Your task to perform on an android device: turn off notifications settings in the gmail app Image 0: 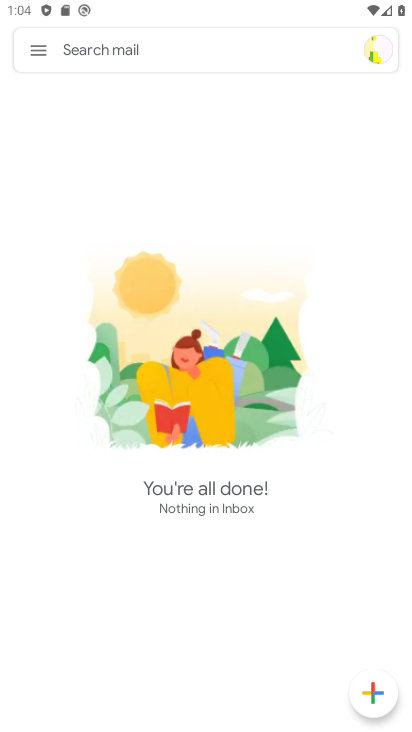
Step 0: click (49, 59)
Your task to perform on an android device: turn off notifications settings in the gmail app Image 1: 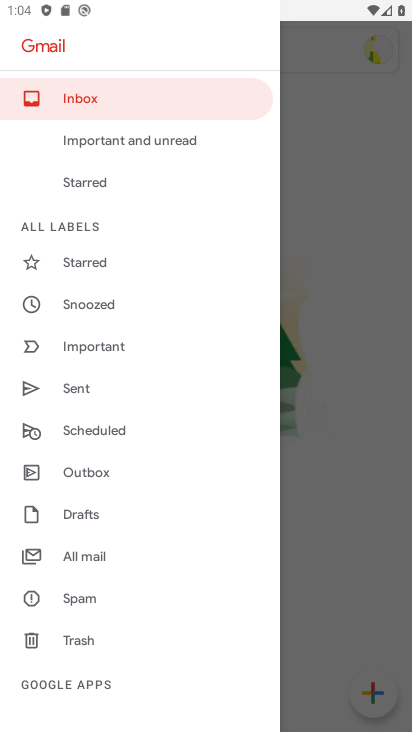
Step 1: drag from (108, 605) to (148, 150)
Your task to perform on an android device: turn off notifications settings in the gmail app Image 2: 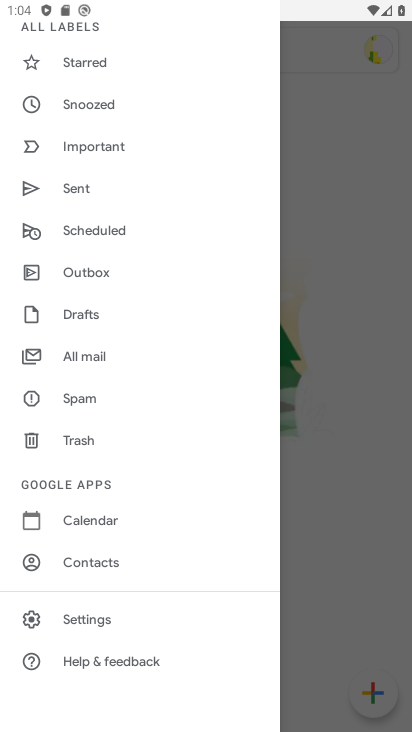
Step 2: click (83, 612)
Your task to perform on an android device: turn off notifications settings in the gmail app Image 3: 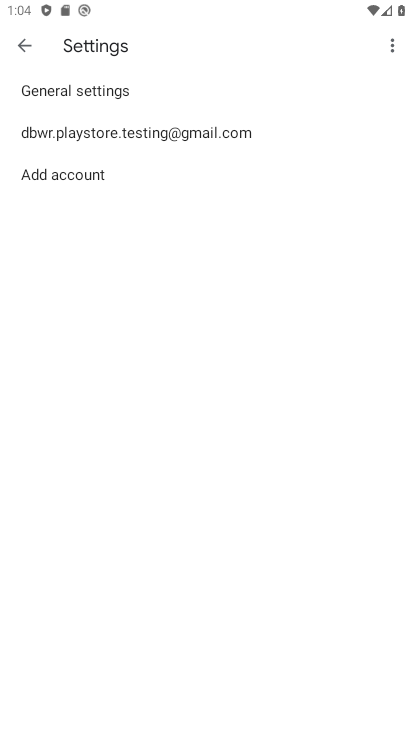
Step 3: click (191, 133)
Your task to perform on an android device: turn off notifications settings in the gmail app Image 4: 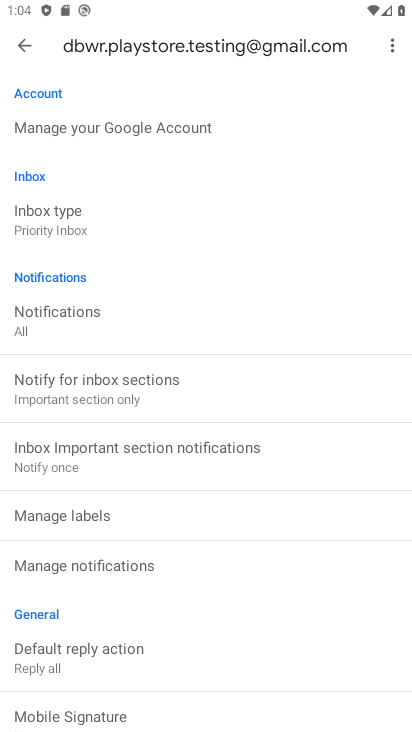
Step 4: click (165, 569)
Your task to perform on an android device: turn off notifications settings in the gmail app Image 5: 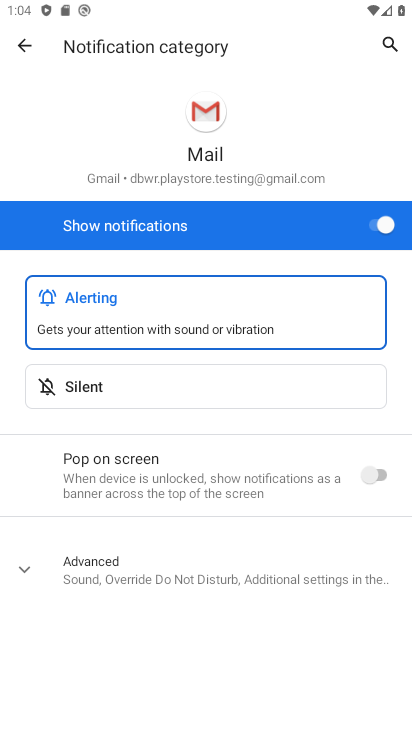
Step 5: click (369, 231)
Your task to perform on an android device: turn off notifications settings in the gmail app Image 6: 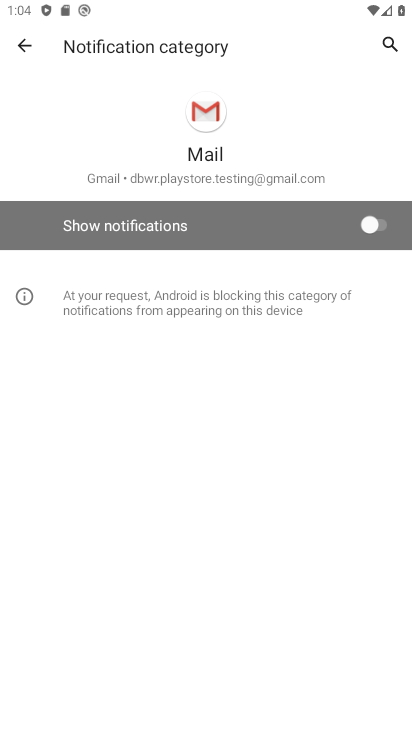
Step 6: task complete